Your task to perform on an android device: set default search engine in the chrome app Image 0: 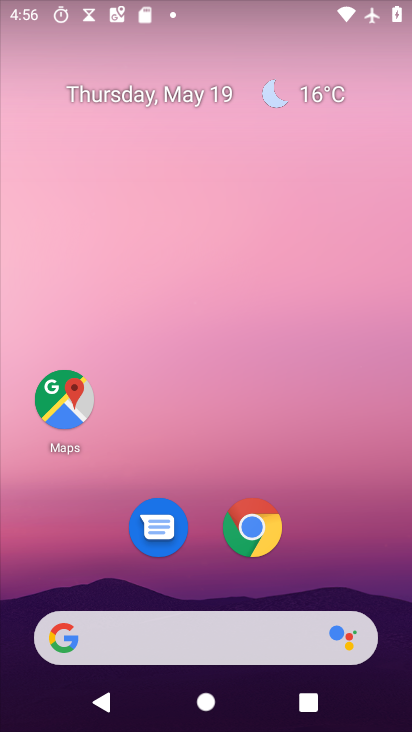
Step 0: click (268, 529)
Your task to perform on an android device: set default search engine in the chrome app Image 1: 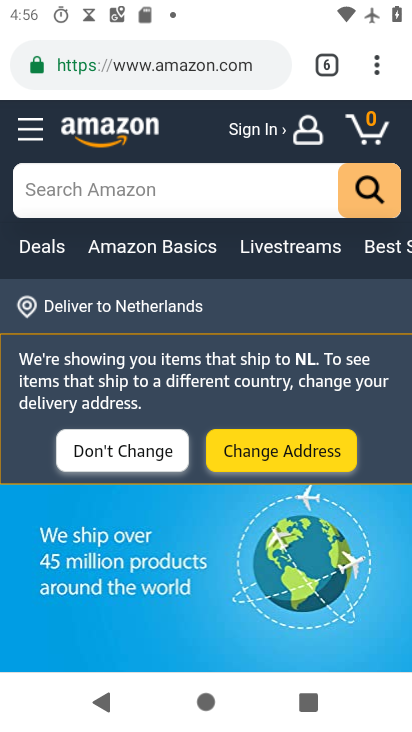
Step 1: click (366, 68)
Your task to perform on an android device: set default search engine in the chrome app Image 2: 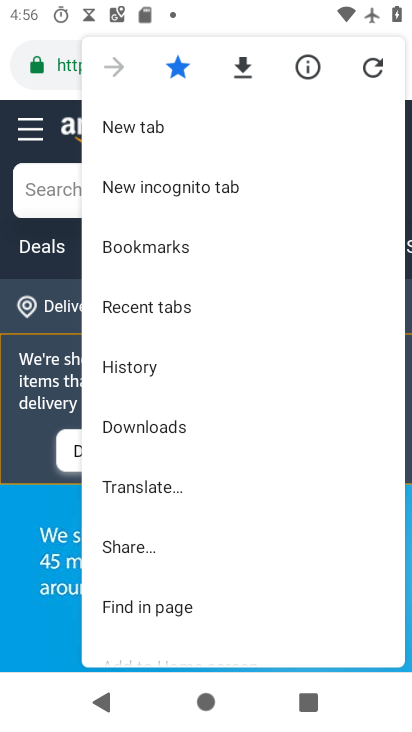
Step 2: drag from (243, 532) to (229, 132)
Your task to perform on an android device: set default search engine in the chrome app Image 3: 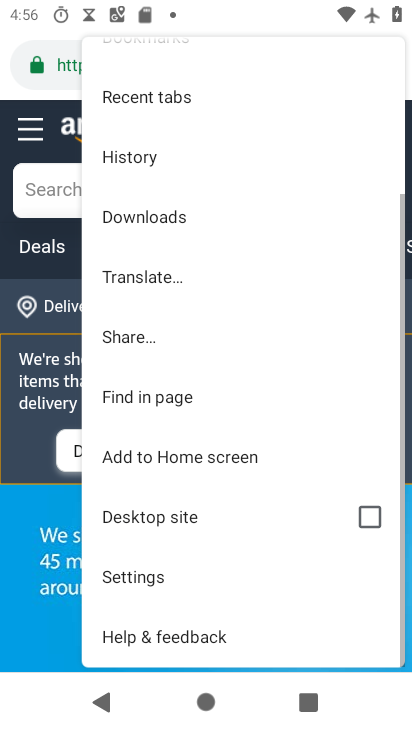
Step 3: click (190, 581)
Your task to perform on an android device: set default search engine in the chrome app Image 4: 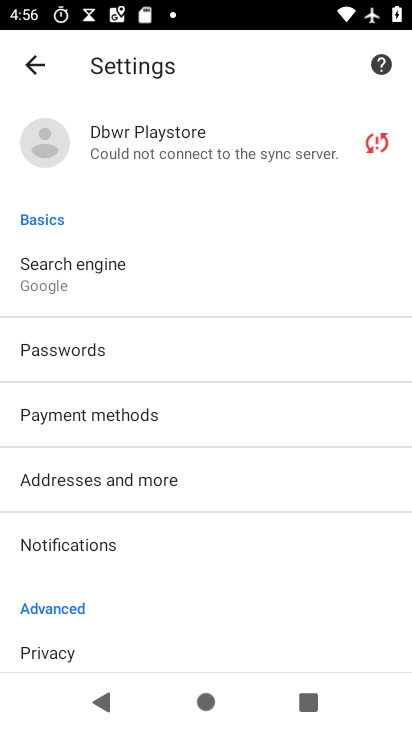
Step 4: click (148, 266)
Your task to perform on an android device: set default search engine in the chrome app Image 5: 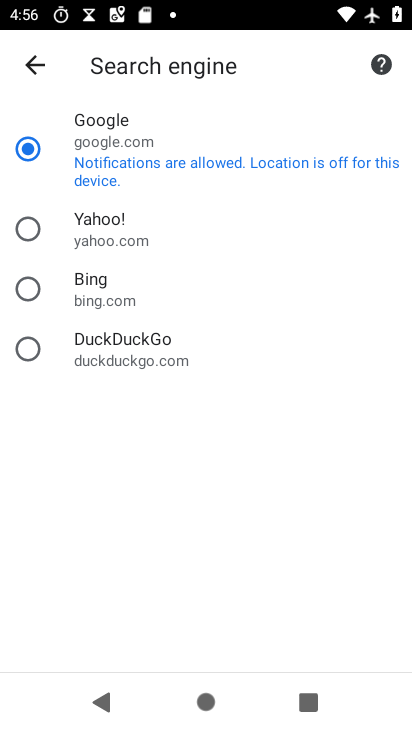
Step 5: click (163, 115)
Your task to perform on an android device: set default search engine in the chrome app Image 6: 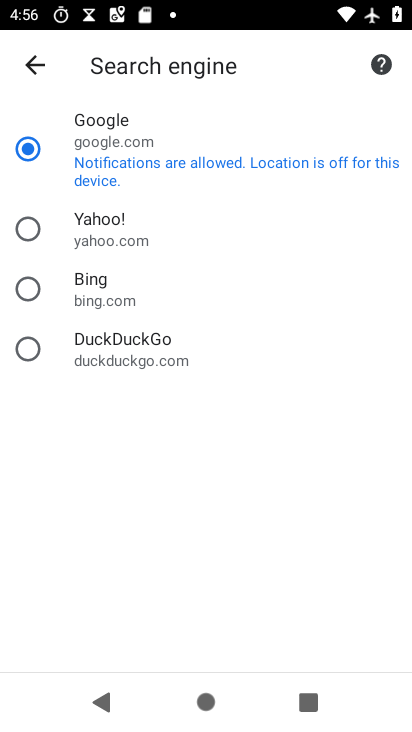
Step 6: task complete